Your task to perform on an android device: Open ESPN.com Image 0: 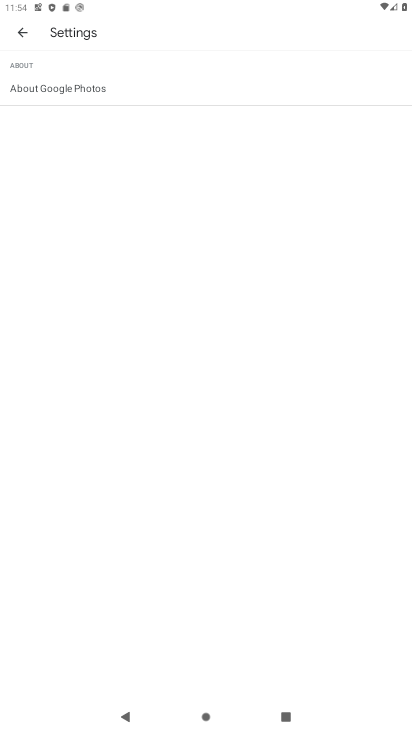
Step 0: press home button
Your task to perform on an android device: Open ESPN.com Image 1: 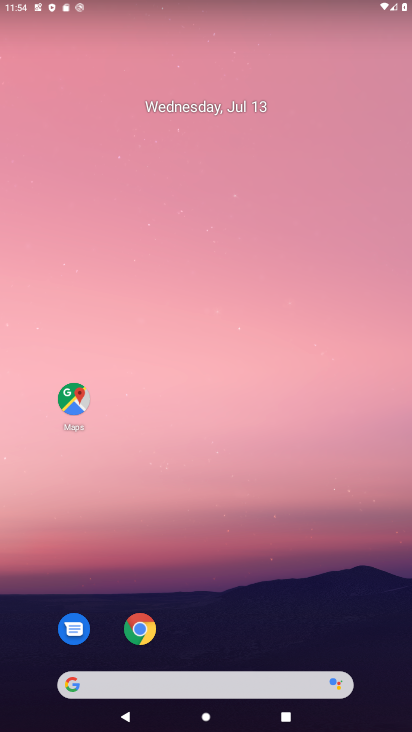
Step 1: drag from (237, 644) to (198, 128)
Your task to perform on an android device: Open ESPN.com Image 2: 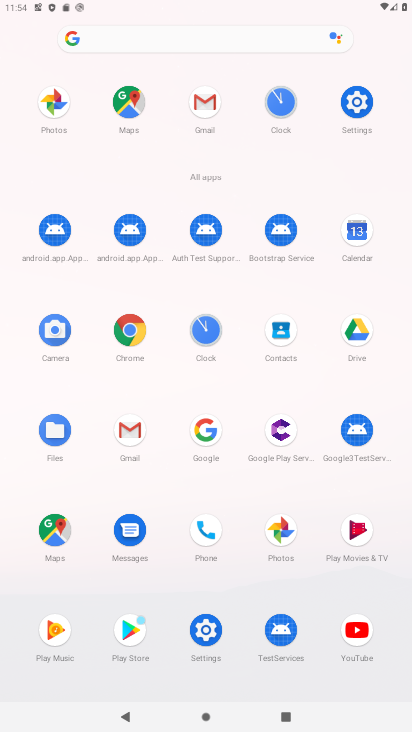
Step 2: click (130, 337)
Your task to perform on an android device: Open ESPN.com Image 3: 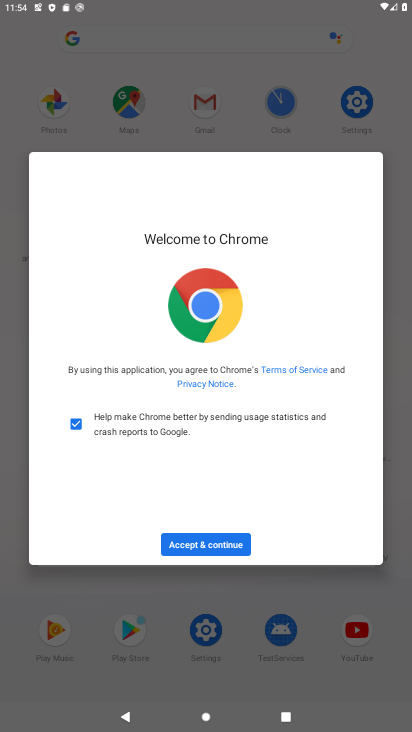
Step 3: click (230, 542)
Your task to perform on an android device: Open ESPN.com Image 4: 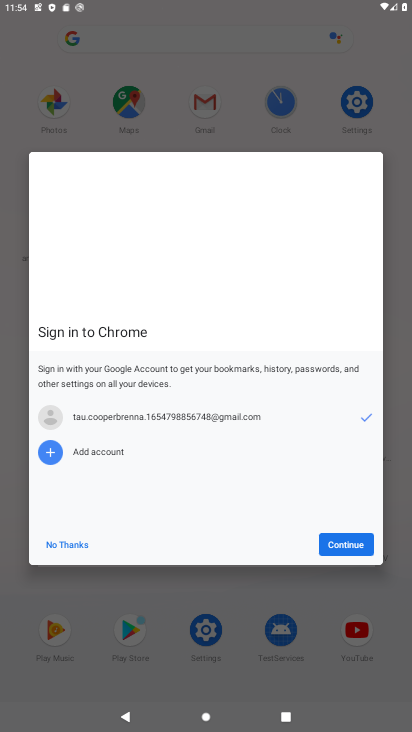
Step 4: click (364, 543)
Your task to perform on an android device: Open ESPN.com Image 5: 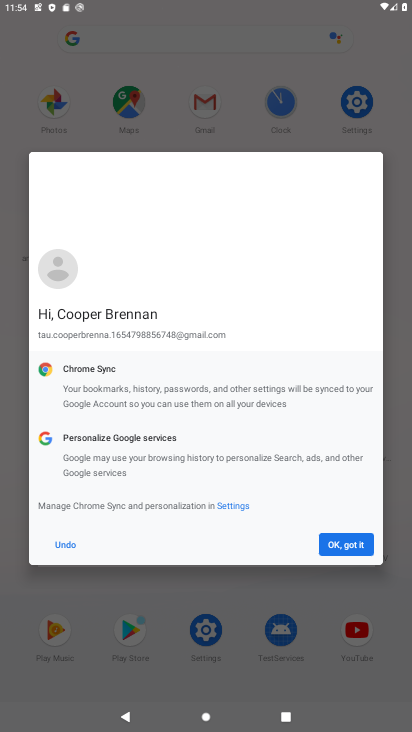
Step 5: click (361, 546)
Your task to perform on an android device: Open ESPN.com Image 6: 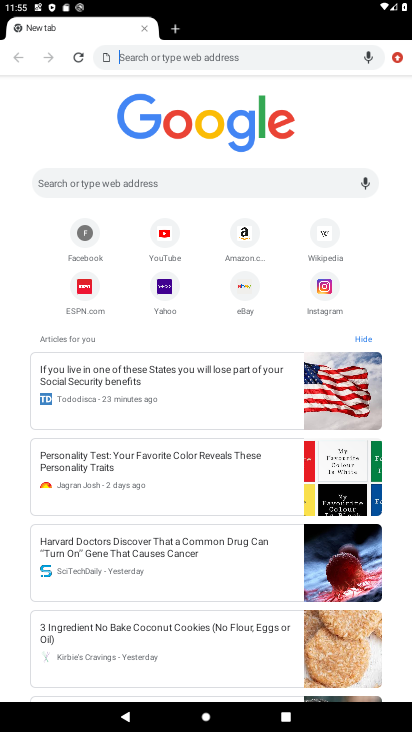
Step 6: click (77, 290)
Your task to perform on an android device: Open ESPN.com Image 7: 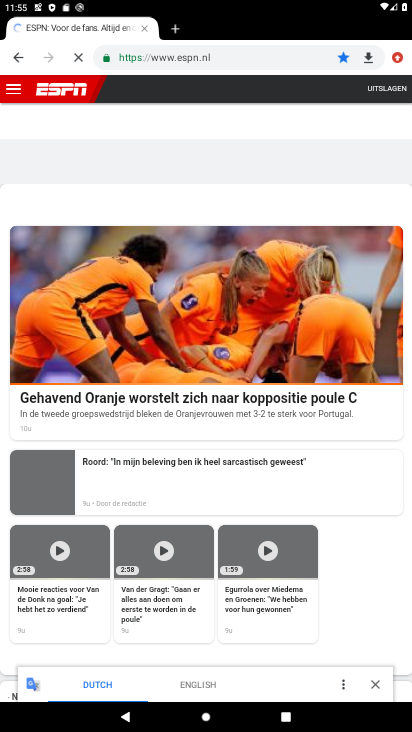
Step 7: task complete